Your task to perform on an android device: toggle data saver in the chrome app Image 0: 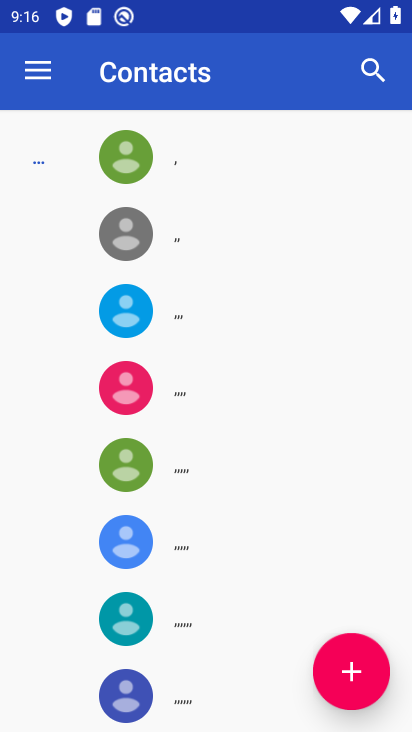
Step 0: press home button
Your task to perform on an android device: toggle data saver in the chrome app Image 1: 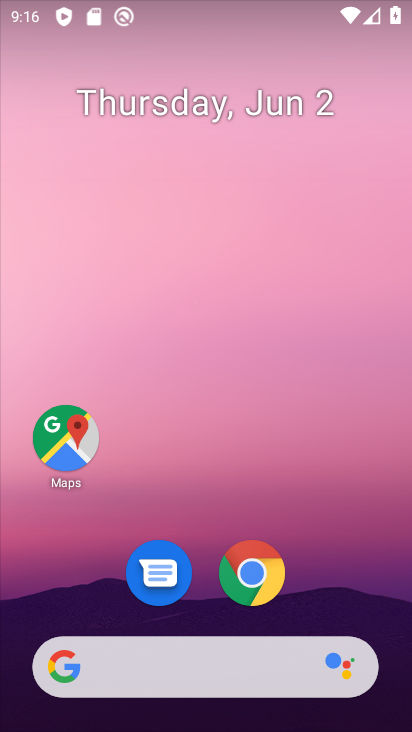
Step 1: click (326, 561)
Your task to perform on an android device: toggle data saver in the chrome app Image 2: 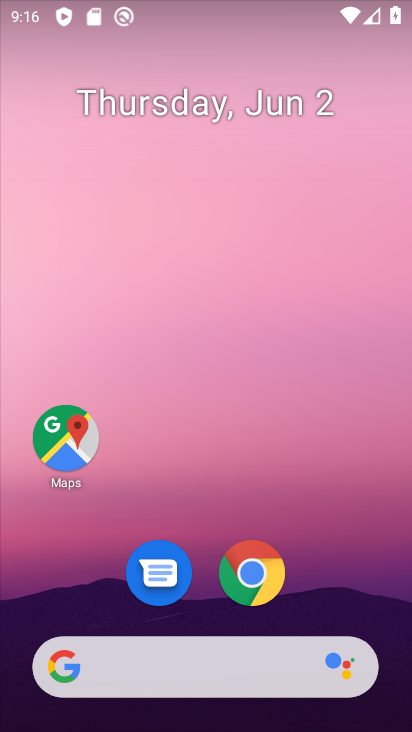
Step 2: click (256, 572)
Your task to perform on an android device: toggle data saver in the chrome app Image 3: 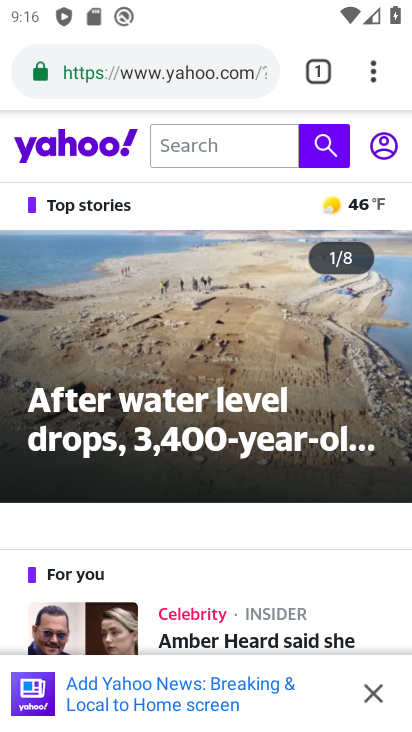
Step 3: drag from (374, 65) to (205, 561)
Your task to perform on an android device: toggle data saver in the chrome app Image 4: 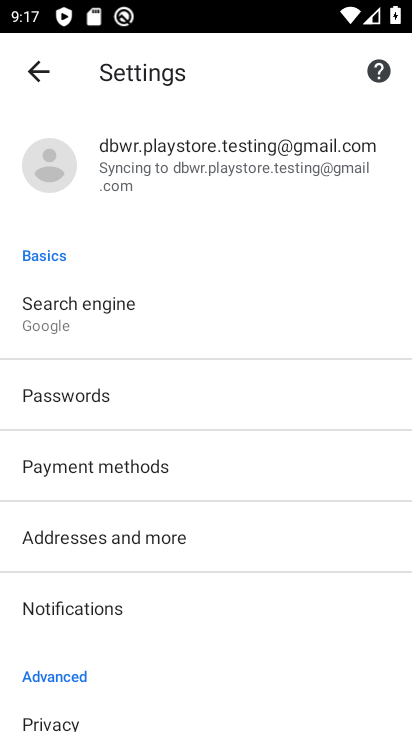
Step 4: drag from (185, 565) to (162, 150)
Your task to perform on an android device: toggle data saver in the chrome app Image 5: 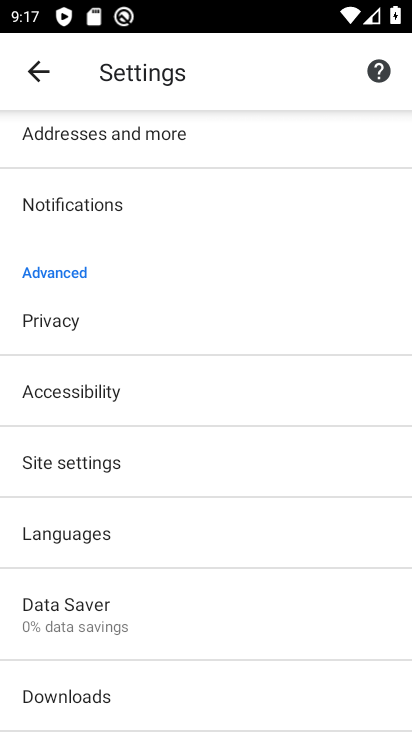
Step 5: click (101, 611)
Your task to perform on an android device: toggle data saver in the chrome app Image 6: 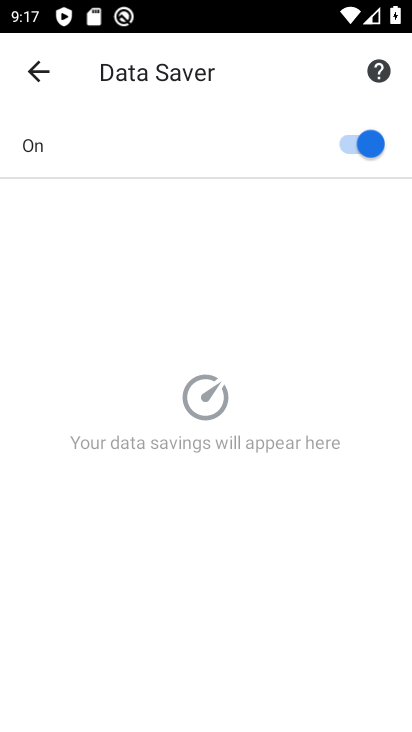
Step 6: click (355, 152)
Your task to perform on an android device: toggle data saver in the chrome app Image 7: 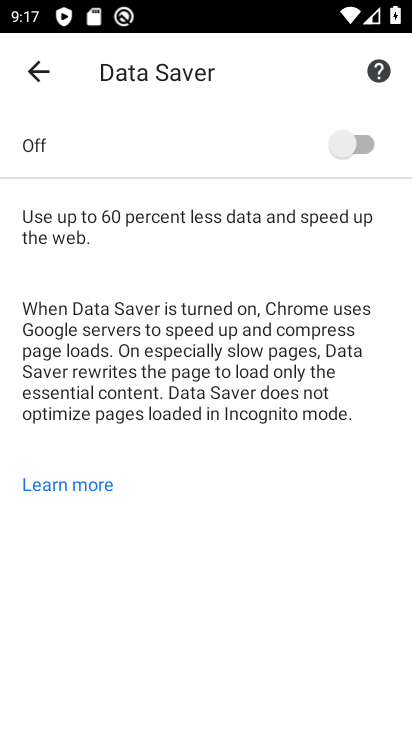
Step 7: task complete